Your task to perform on an android device: toggle translation in the chrome app Image 0: 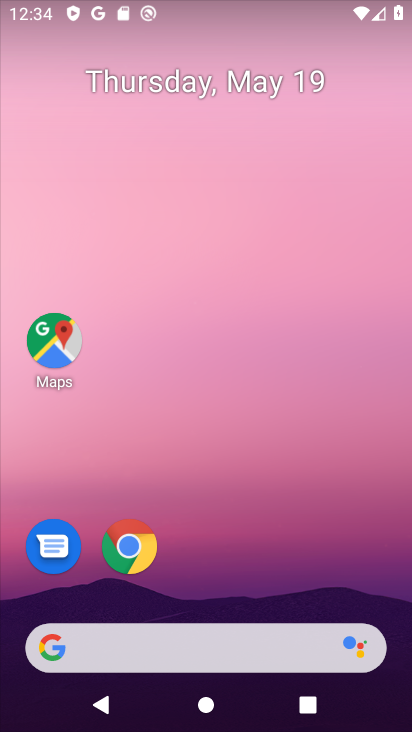
Step 0: click (136, 537)
Your task to perform on an android device: toggle translation in the chrome app Image 1: 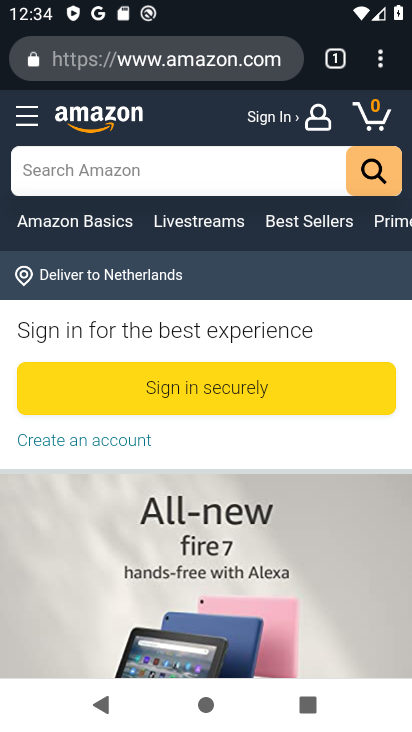
Step 1: click (387, 59)
Your task to perform on an android device: toggle translation in the chrome app Image 2: 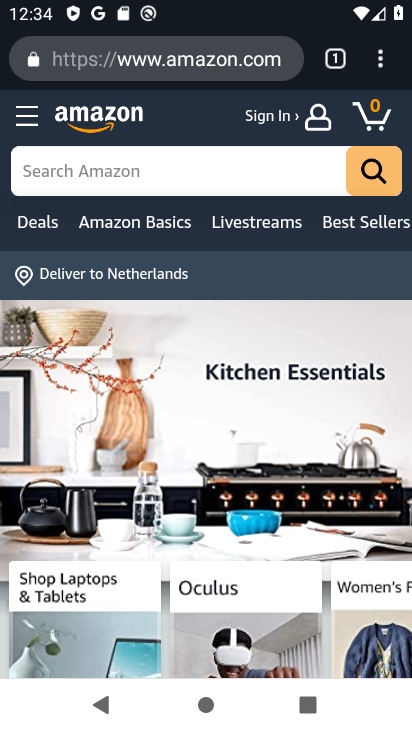
Step 2: click (375, 62)
Your task to perform on an android device: toggle translation in the chrome app Image 3: 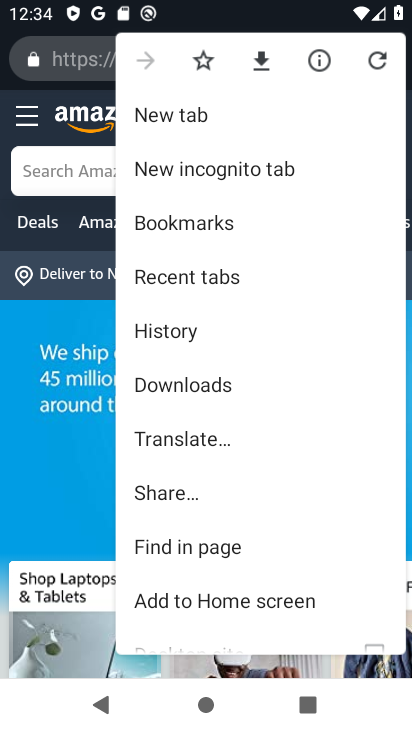
Step 3: drag from (266, 584) to (237, 156)
Your task to perform on an android device: toggle translation in the chrome app Image 4: 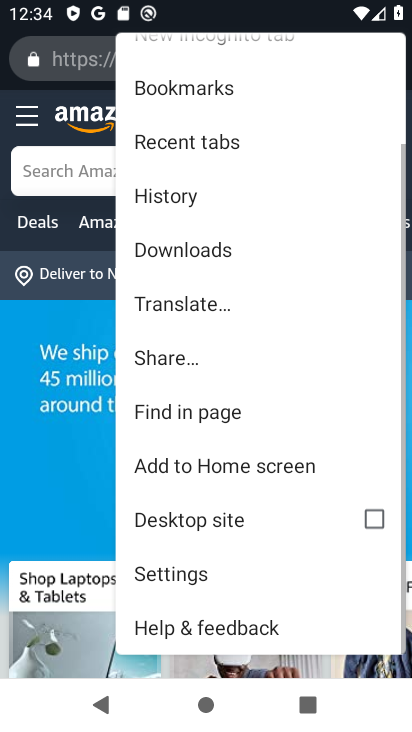
Step 4: click (241, 564)
Your task to perform on an android device: toggle translation in the chrome app Image 5: 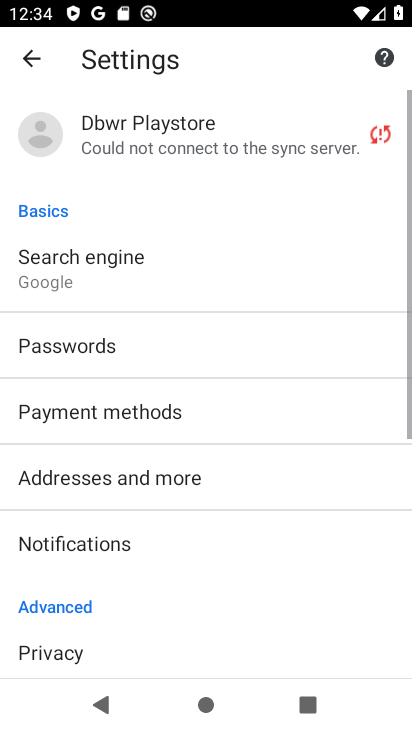
Step 5: drag from (147, 615) to (150, 225)
Your task to perform on an android device: toggle translation in the chrome app Image 6: 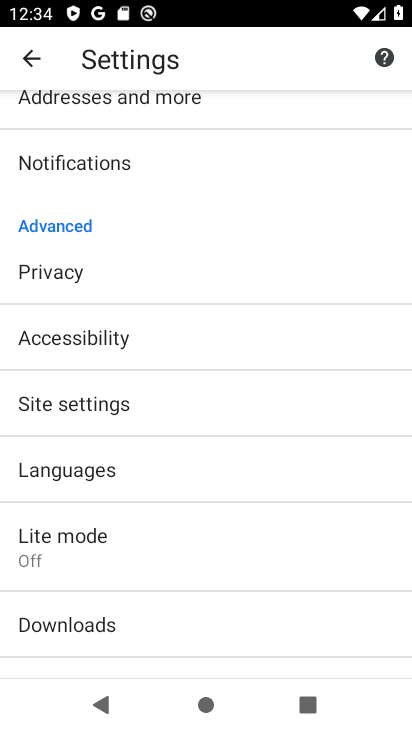
Step 6: click (105, 476)
Your task to perform on an android device: toggle translation in the chrome app Image 7: 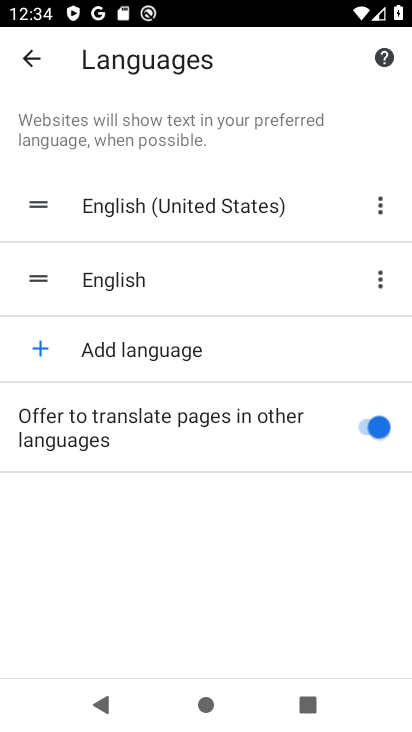
Step 7: click (371, 432)
Your task to perform on an android device: toggle translation in the chrome app Image 8: 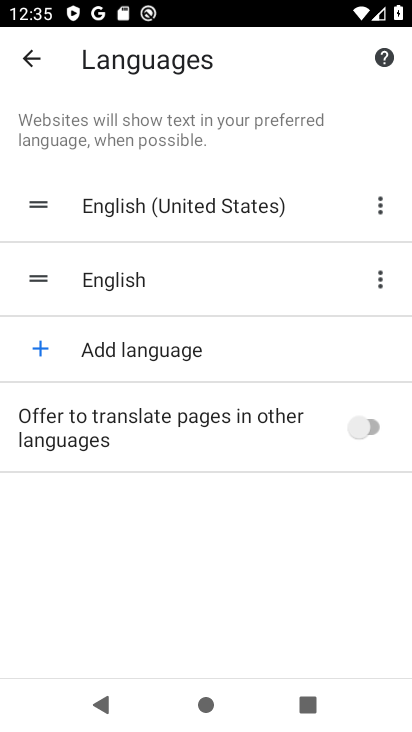
Step 8: task complete